Your task to perform on an android device: turn off smart reply in the gmail app Image 0: 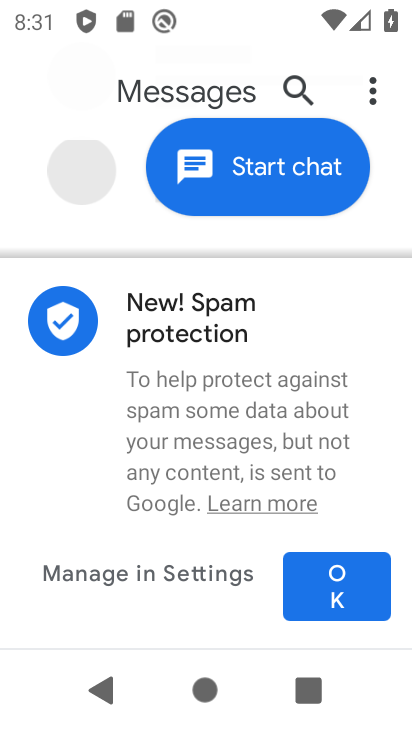
Step 0: press home button
Your task to perform on an android device: turn off smart reply in the gmail app Image 1: 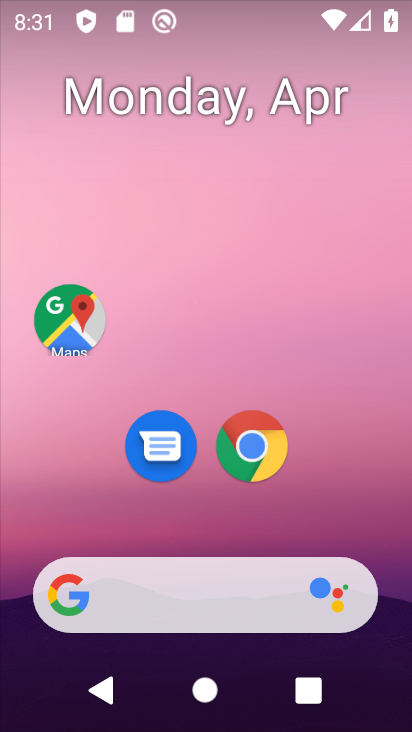
Step 1: drag from (331, 501) to (353, 102)
Your task to perform on an android device: turn off smart reply in the gmail app Image 2: 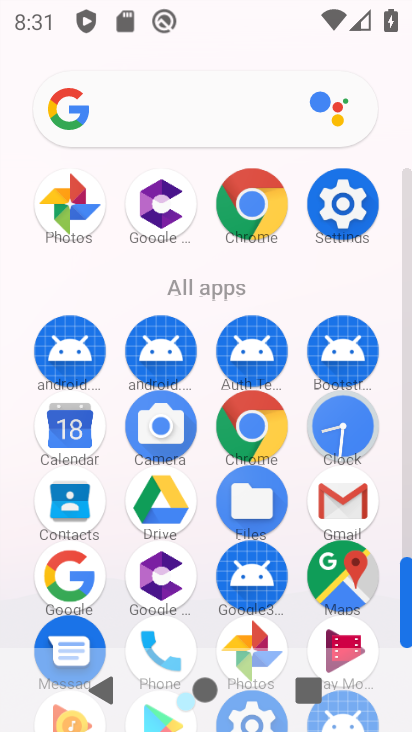
Step 2: click (342, 511)
Your task to perform on an android device: turn off smart reply in the gmail app Image 3: 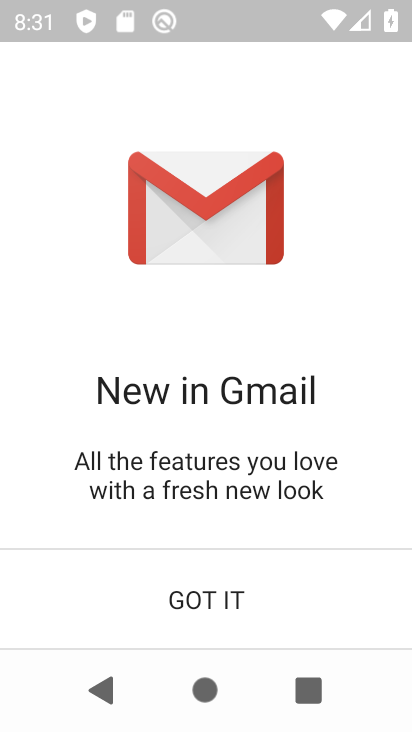
Step 3: click (240, 600)
Your task to perform on an android device: turn off smart reply in the gmail app Image 4: 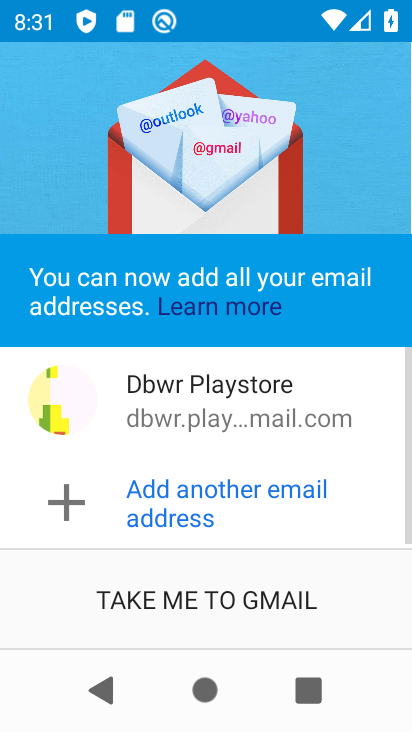
Step 4: click (241, 600)
Your task to perform on an android device: turn off smart reply in the gmail app Image 5: 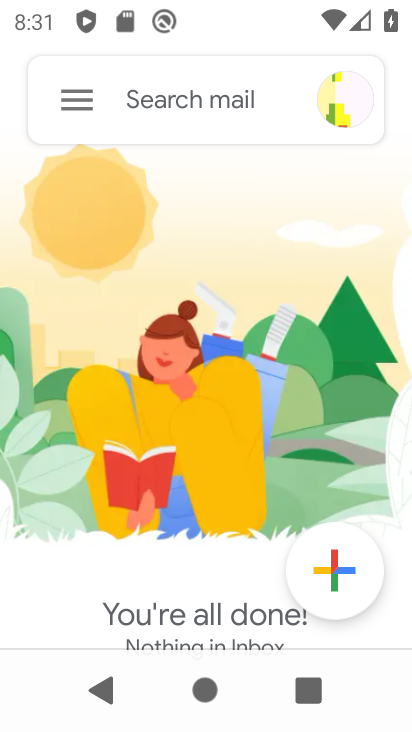
Step 5: click (92, 106)
Your task to perform on an android device: turn off smart reply in the gmail app Image 6: 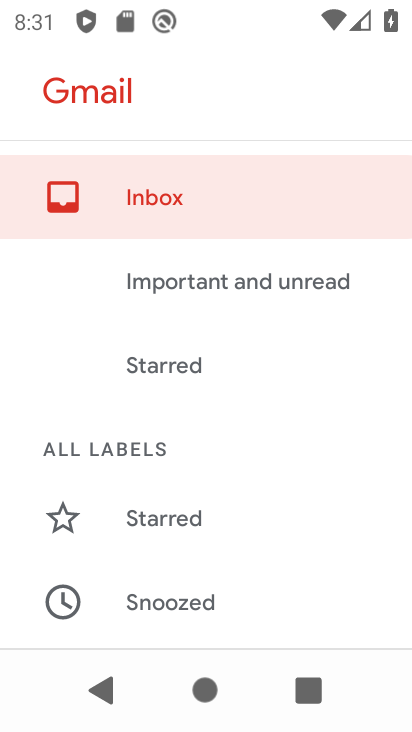
Step 6: drag from (365, 547) to (383, 283)
Your task to perform on an android device: turn off smart reply in the gmail app Image 7: 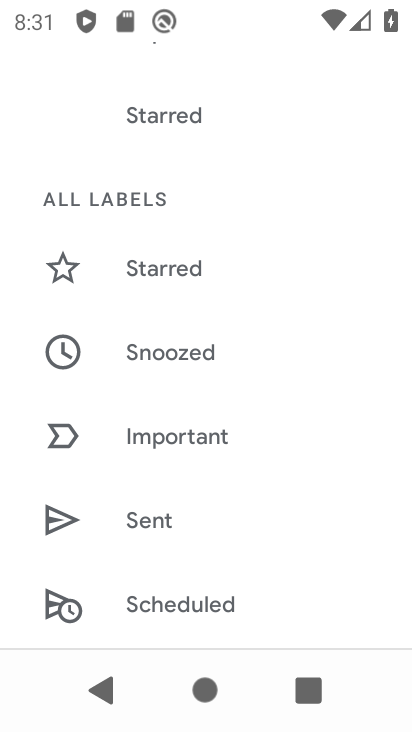
Step 7: drag from (356, 545) to (369, 196)
Your task to perform on an android device: turn off smart reply in the gmail app Image 8: 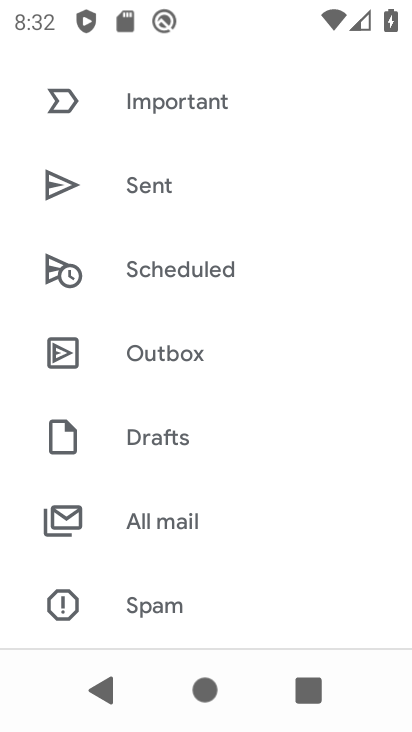
Step 8: drag from (344, 549) to (348, 188)
Your task to perform on an android device: turn off smart reply in the gmail app Image 9: 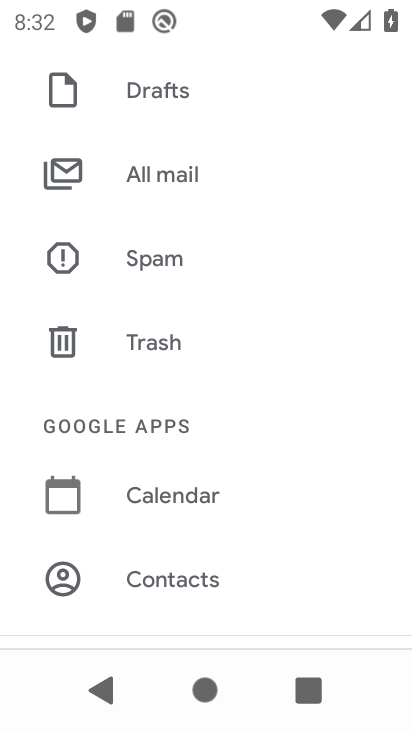
Step 9: drag from (351, 534) to (363, 247)
Your task to perform on an android device: turn off smart reply in the gmail app Image 10: 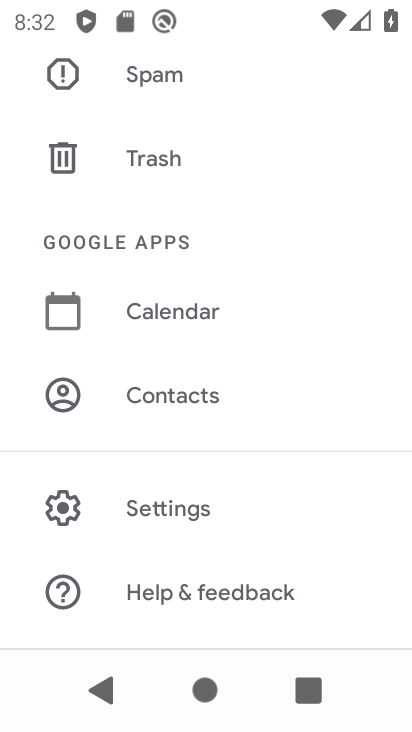
Step 10: click (199, 512)
Your task to perform on an android device: turn off smart reply in the gmail app Image 11: 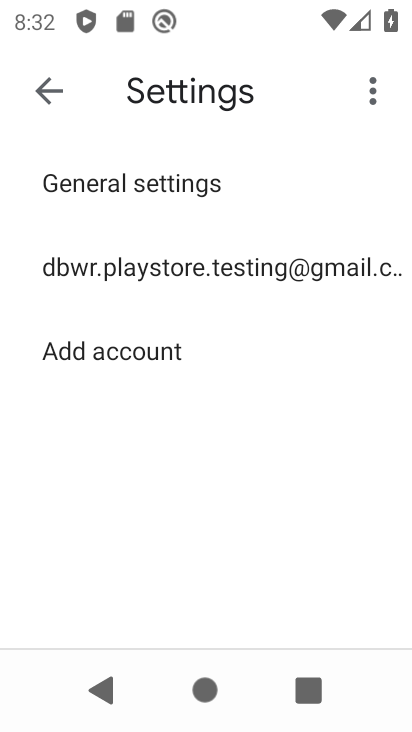
Step 11: click (274, 270)
Your task to perform on an android device: turn off smart reply in the gmail app Image 12: 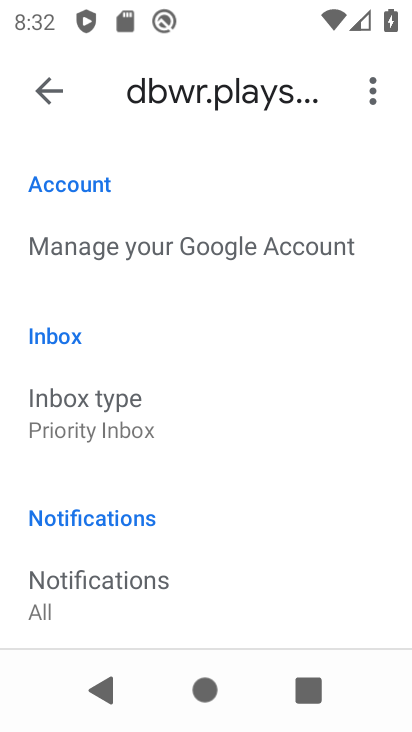
Step 12: drag from (356, 467) to (363, 313)
Your task to perform on an android device: turn off smart reply in the gmail app Image 13: 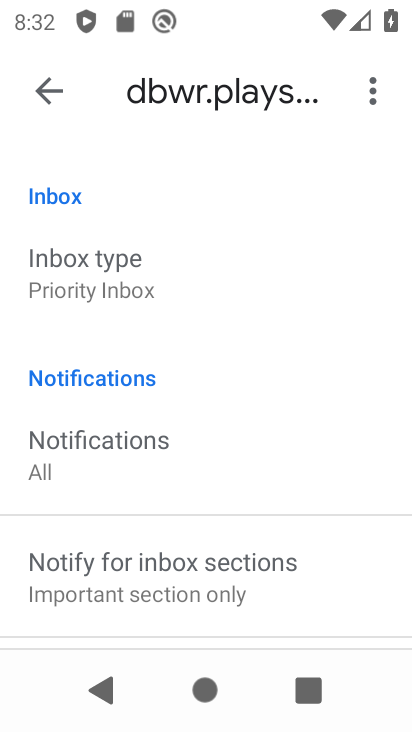
Step 13: drag from (358, 494) to (367, 292)
Your task to perform on an android device: turn off smart reply in the gmail app Image 14: 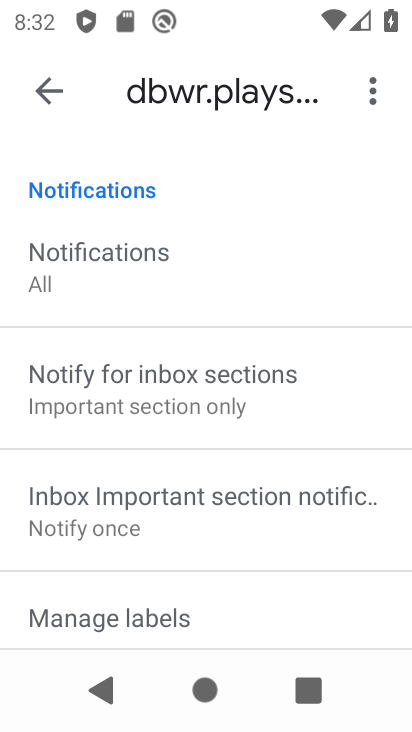
Step 14: drag from (360, 571) to (370, 273)
Your task to perform on an android device: turn off smart reply in the gmail app Image 15: 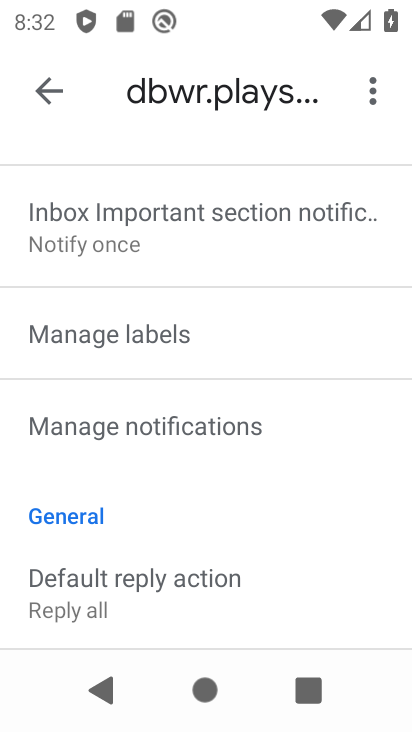
Step 15: drag from (339, 545) to (356, 292)
Your task to perform on an android device: turn off smart reply in the gmail app Image 16: 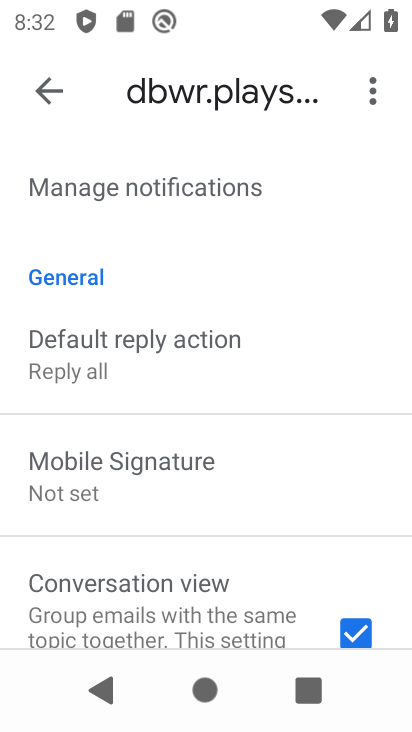
Step 16: drag from (341, 504) to (355, 274)
Your task to perform on an android device: turn off smart reply in the gmail app Image 17: 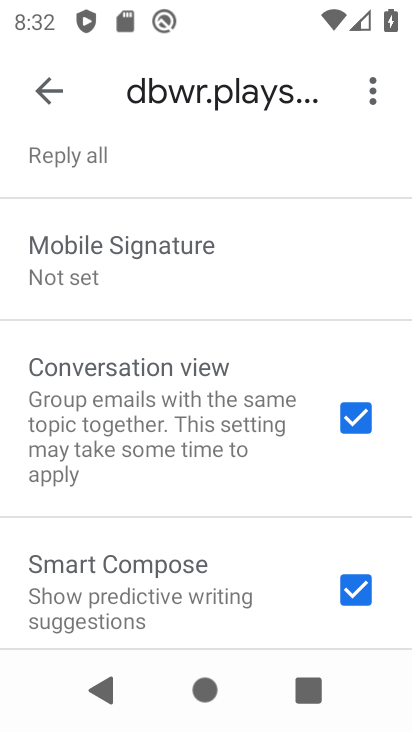
Step 17: drag from (285, 533) to (308, 266)
Your task to perform on an android device: turn off smart reply in the gmail app Image 18: 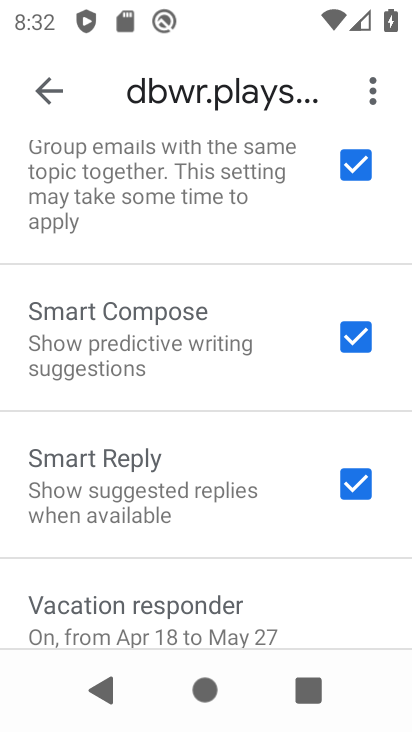
Step 18: drag from (300, 548) to (312, 368)
Your task to perform on an android device: turn off smart reply in the gmail app Image 19: 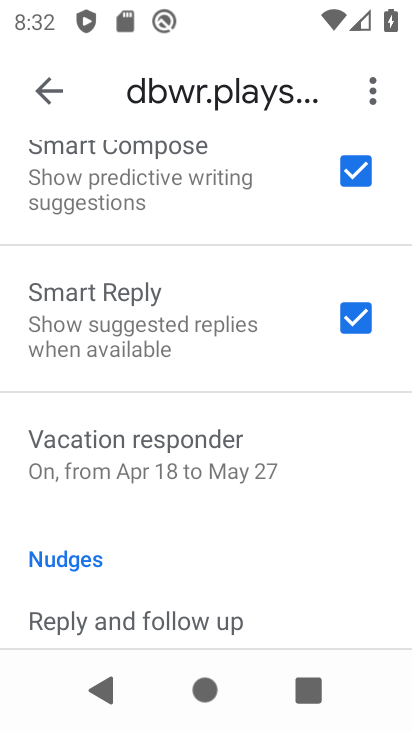
Step 19: click (355, 315)
Your task to perform on an android device: turn off smart reply in the gmail app Image 20: 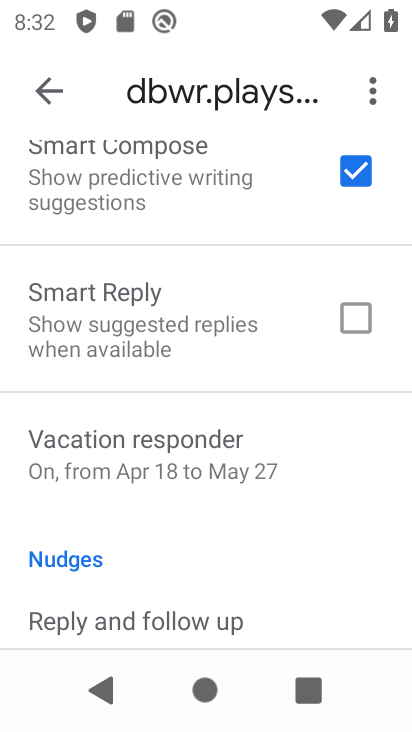
Step 20: task complete